Your task to perform on an android device: Search for 24"x36" picture frame on Home Depot. Image 0: 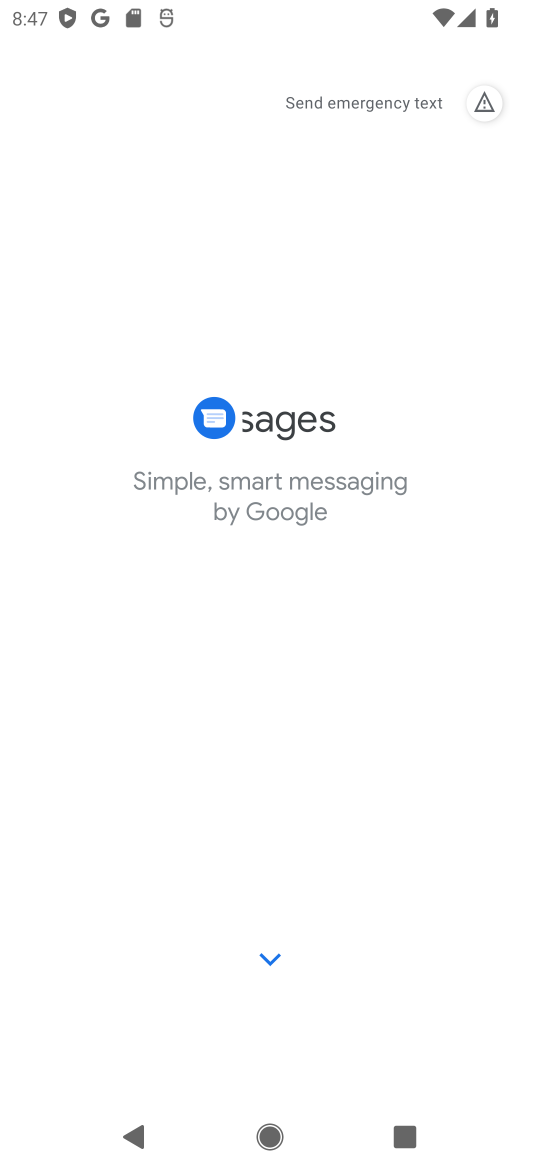
Step 0: press home button
Your task to perform on an android device: Search for 24"x36" picture frame on Home Depot. Image 1: 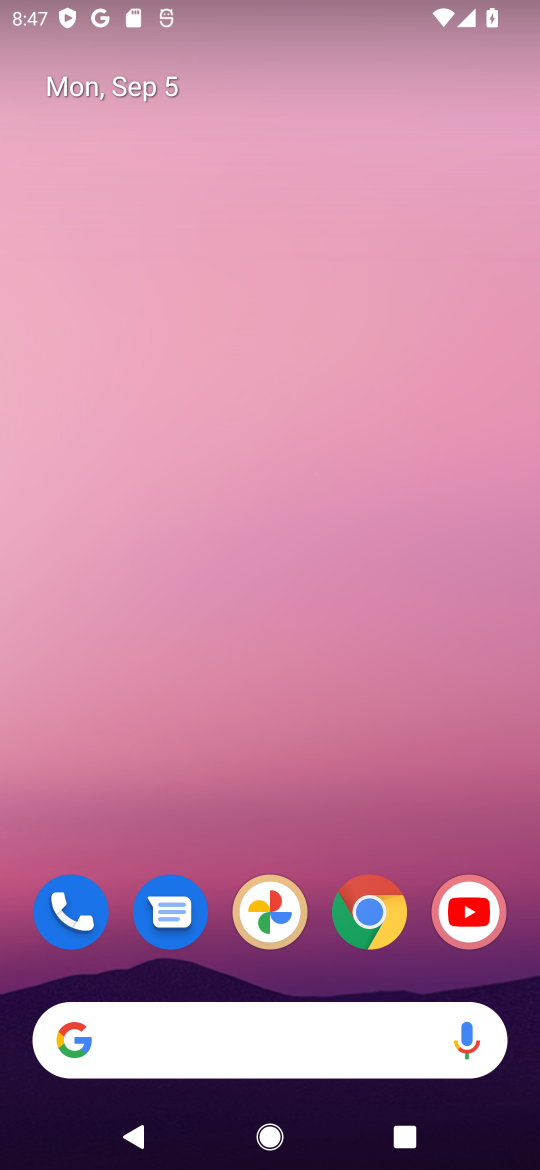
Step 1: click (373, 933)
Your task to perform on an android device: Search for 24"x36" picture frame on Home Depot. Image 2: 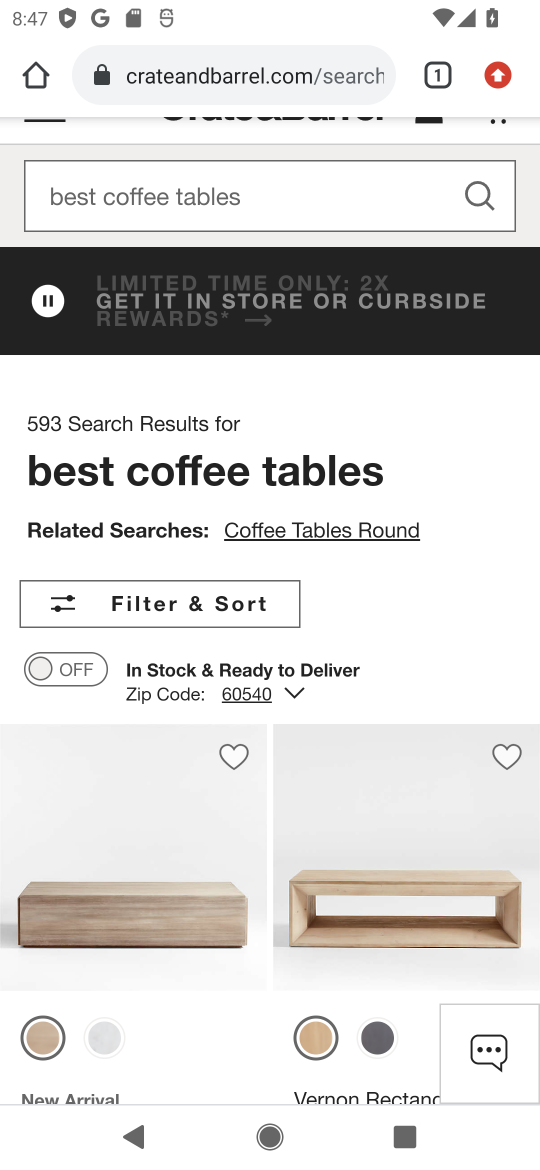
Step 2: drag from (175, 193) to (207, 89)
Your task to perform on an android device: Search for 24"x36" picture frame on Home Depot. Image 3: 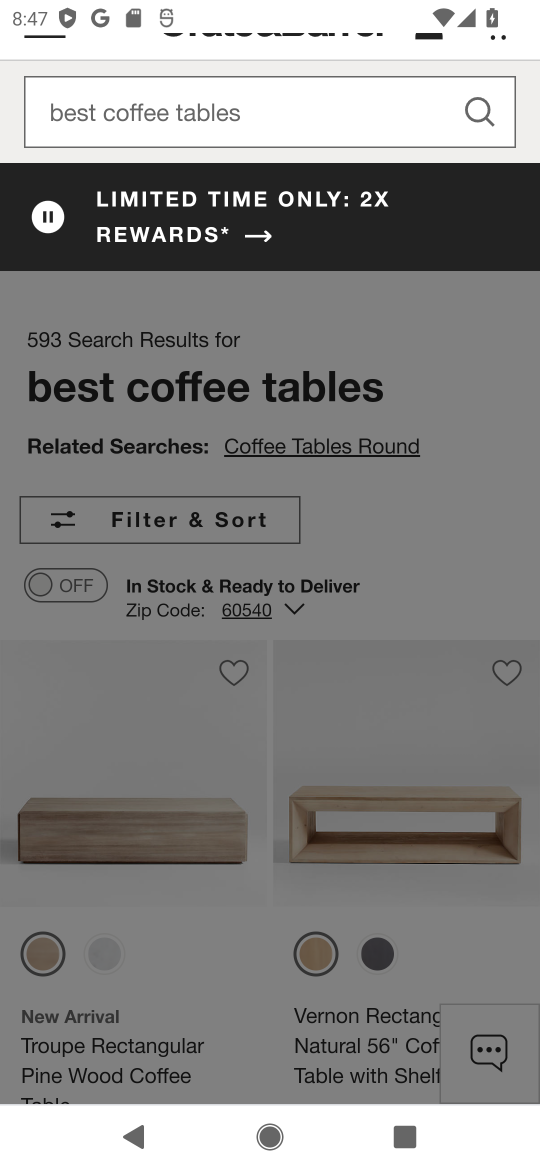
Step 3: click (212, 82)
Your task to perform on an android device: Search for 24"x36" picture frame on Home Depot. Image 4: 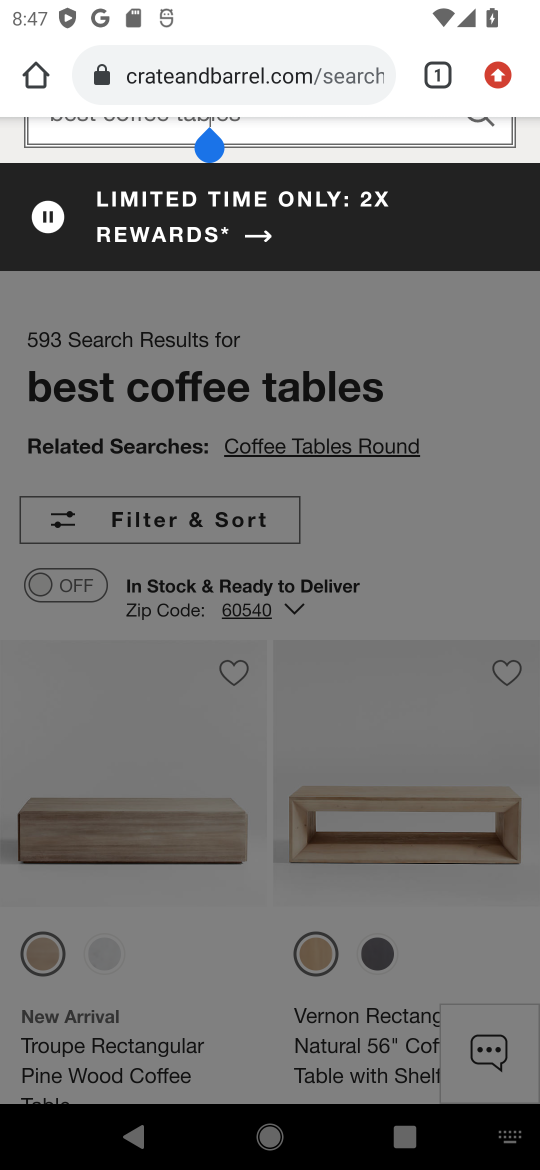
Step 4: drag from (214, 83) to (214, 174)
Your task to perform on an android device: Search for 24"x36" picture frame on Home Depot. Image 5: 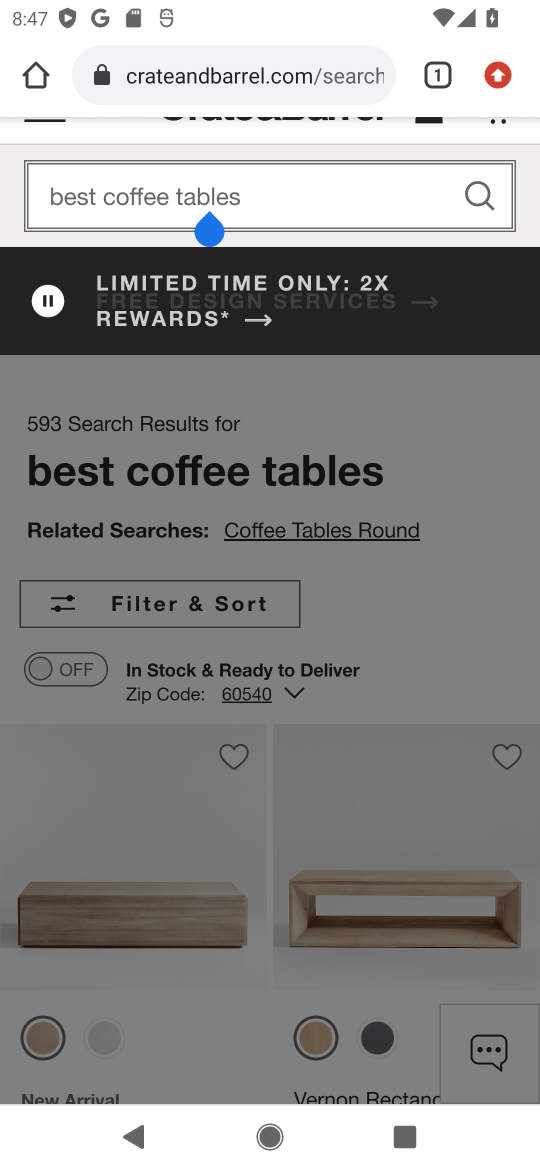
Step 5: click (227, 80)
Your task to perform on an android device: Search for 24"x36" picture frame on Home Depot. Image 6: 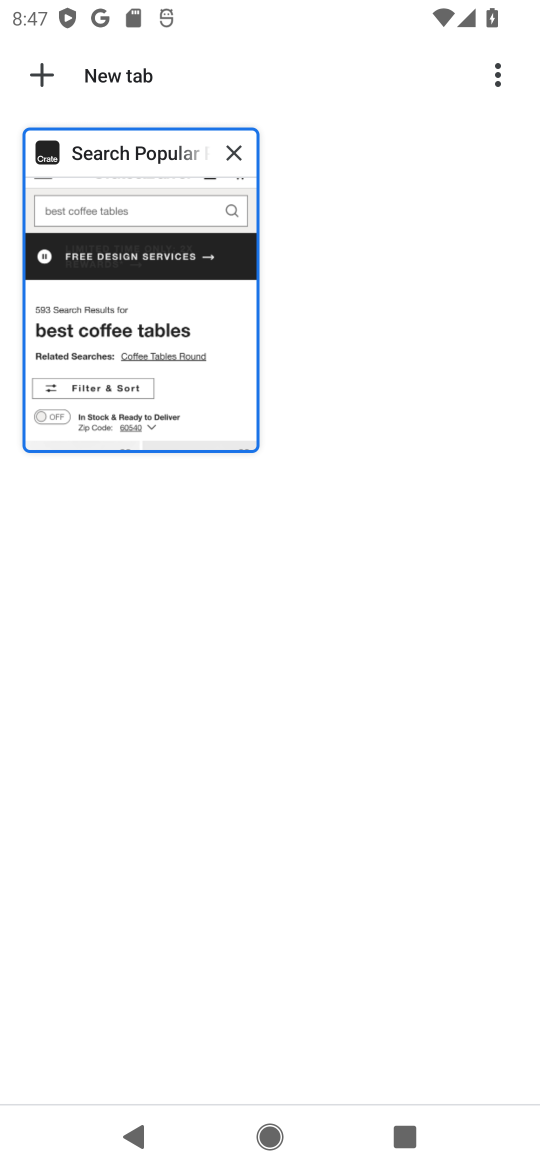
Step 6: click (44, 73)
Your task to perform on an android device: Search for 24"x36" picture frame on Home Depot. Image 7: 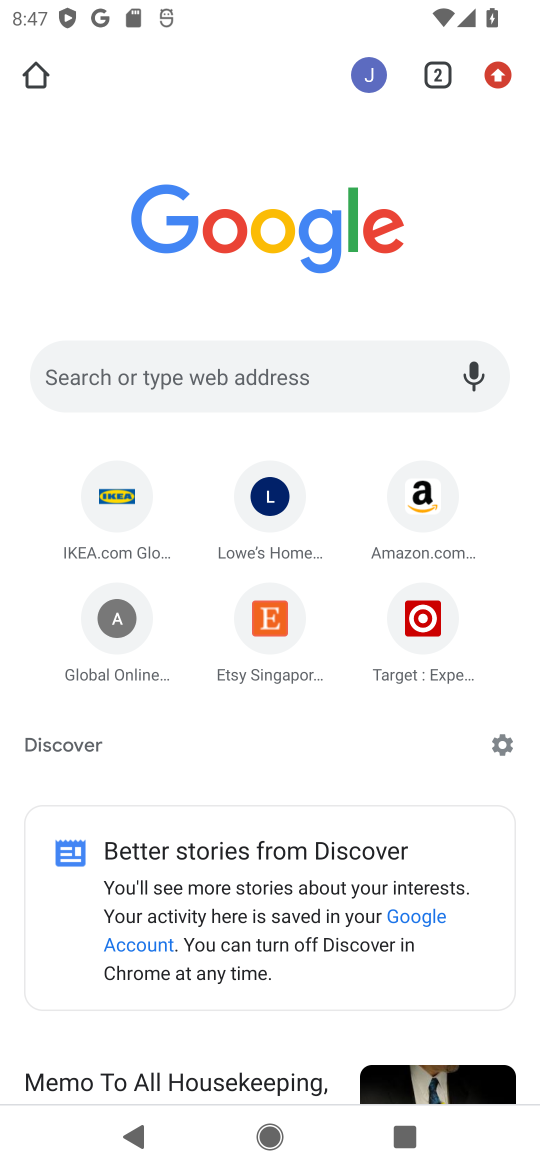
Step 7: click (284, 374)
Your task to perform on an android device: Search for 24"x36" picture frame on Home Depot. Image 8: 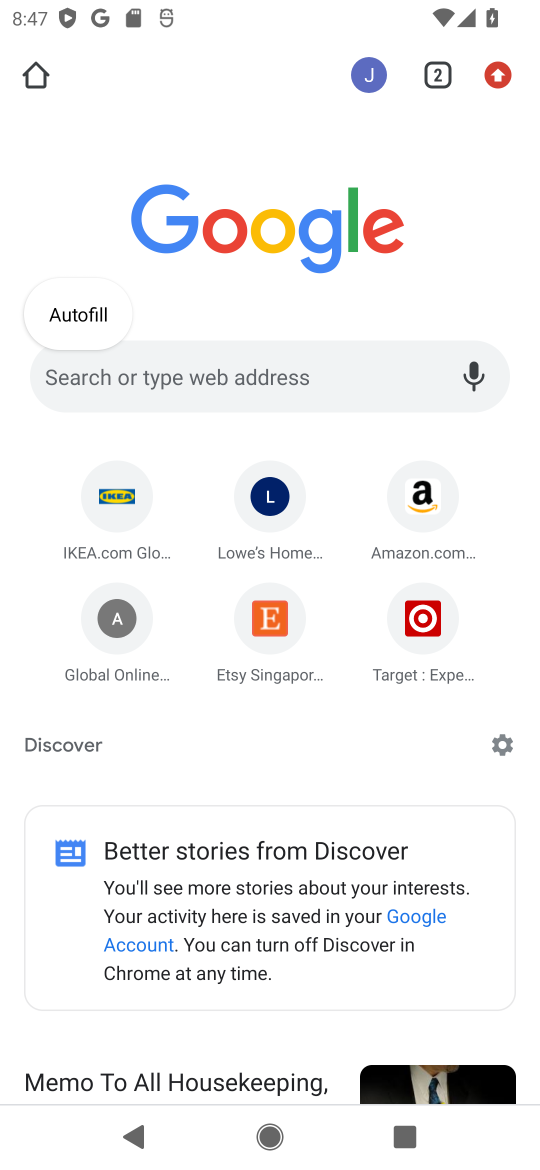
Step 8: type "home depot"
Your task to perform on an android device: Search for 24"x36" picture frame on Home Depot. Image 9: 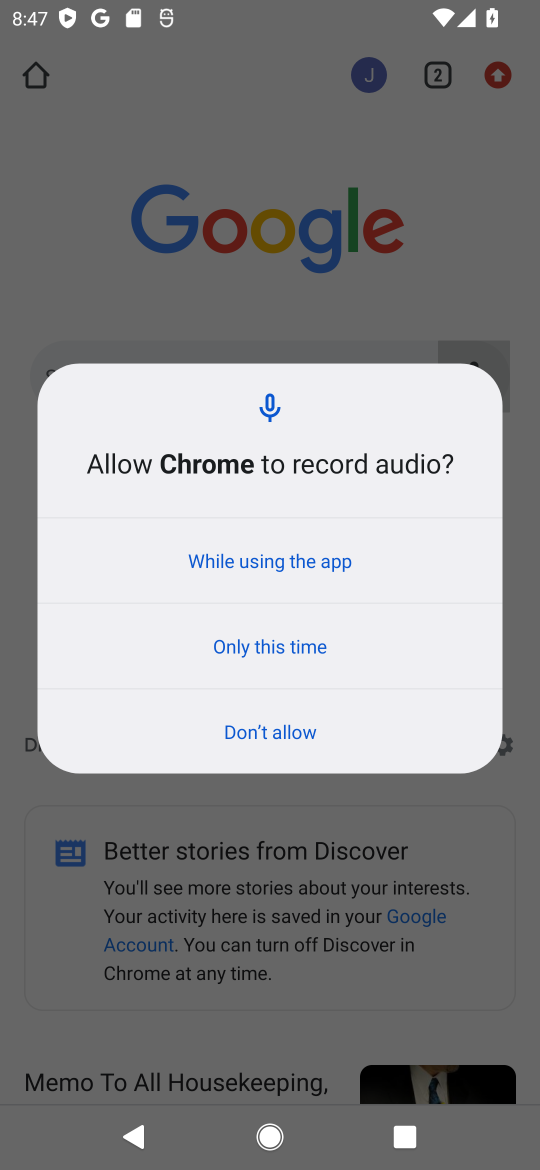
Step 9: click (290, 570)
Your task to perform on an android device: Search for 24"x36" picture frame on Home Depot. Image 10: 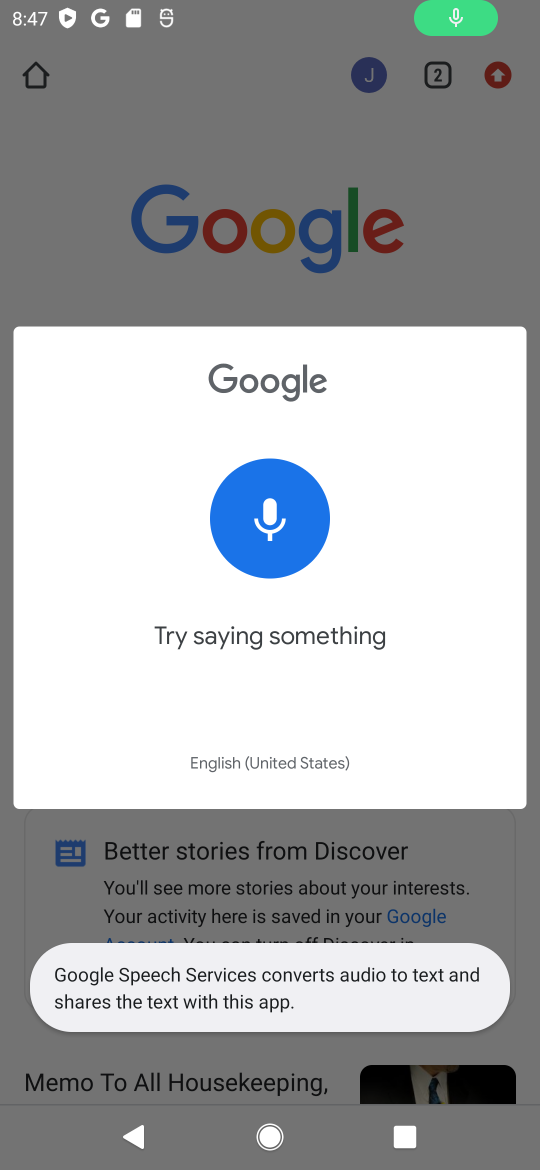
Step 10: click (146, 356)
Your task to perform on an android device: Search for 24"x36" picture frame on Home Depot. Image 11: 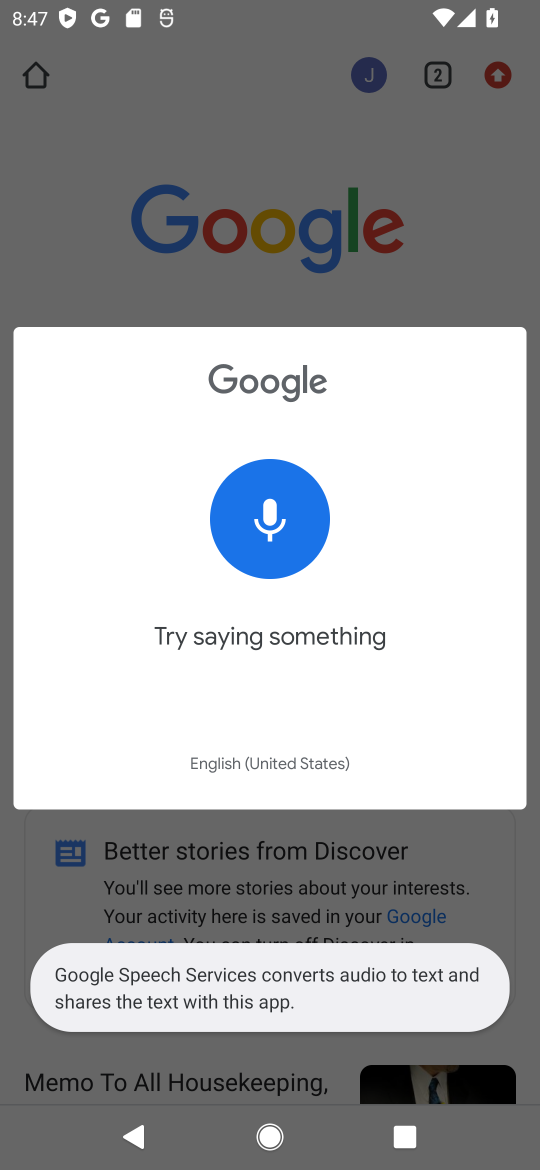
Step 11: click (339, 875)
Your task to perform on an android device: Search for 24"x36" picture frame on Home Depot. Image 12: 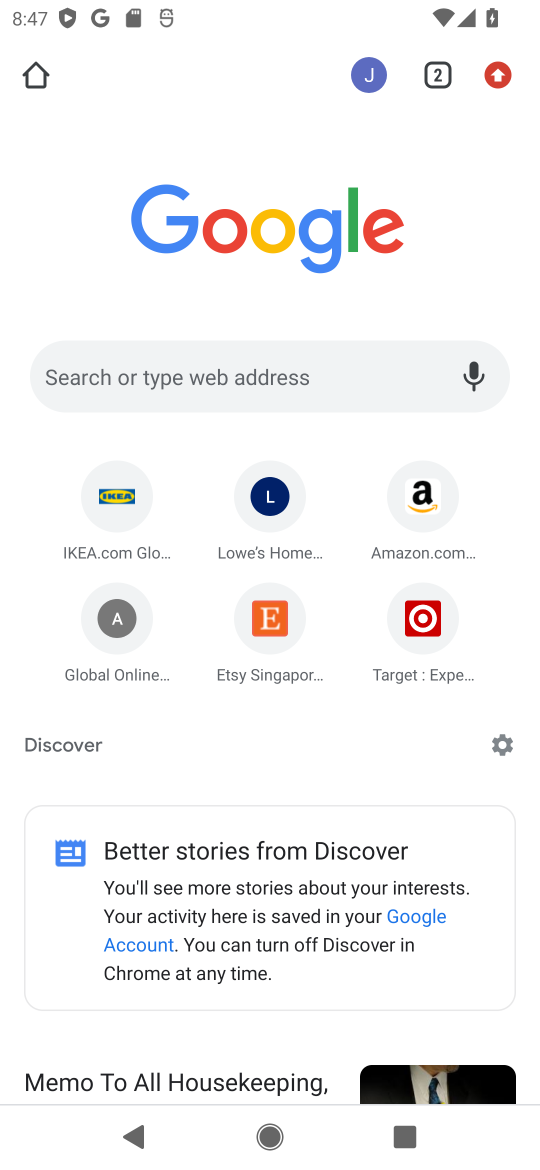
Step 12: click (208, 365)
Your task to perform on an android device: Search for 24"x36" picture frame on Home Depot. Image 13: 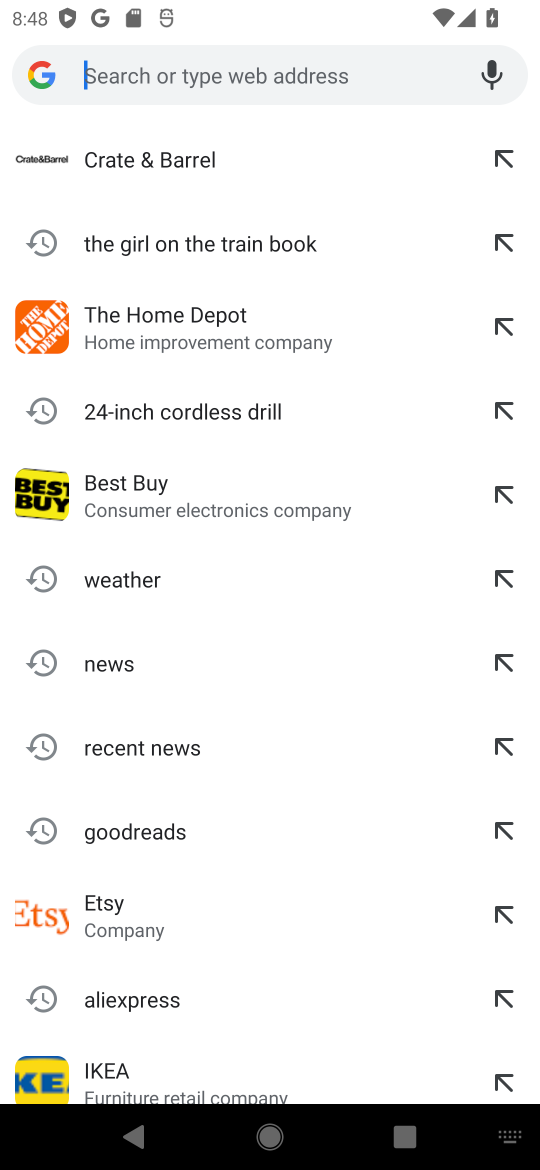
Step 13: type "home depot"
Your task to perform on an android device: Search for 24"x36" picture frame on Home Depot. Image 14: 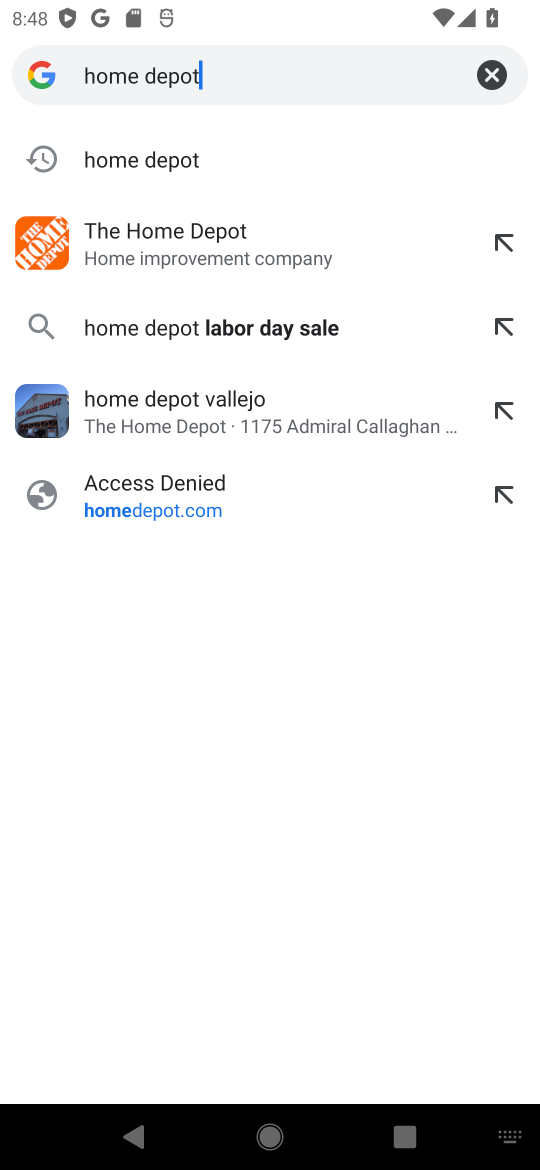
Step 14: click (234, 177)
Your task to perform on an android device: Search for 24"x36" picture frame on Home Depot. Image 15: 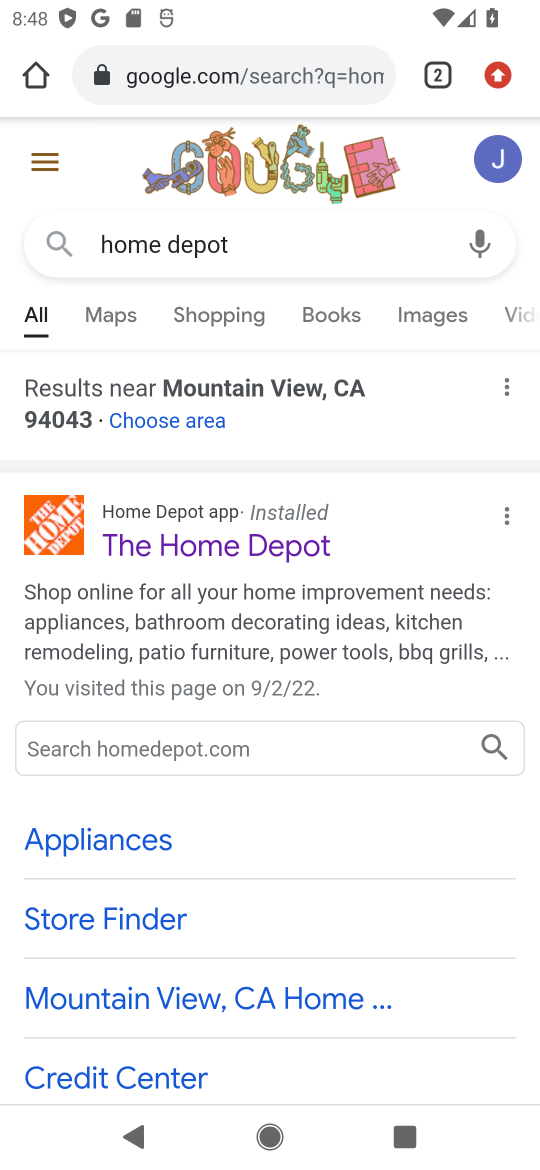
Step 15: click (245, 550)
Your task to perform on an android device: Search for 24"x36" picture frame on Home Depot. Image 16: 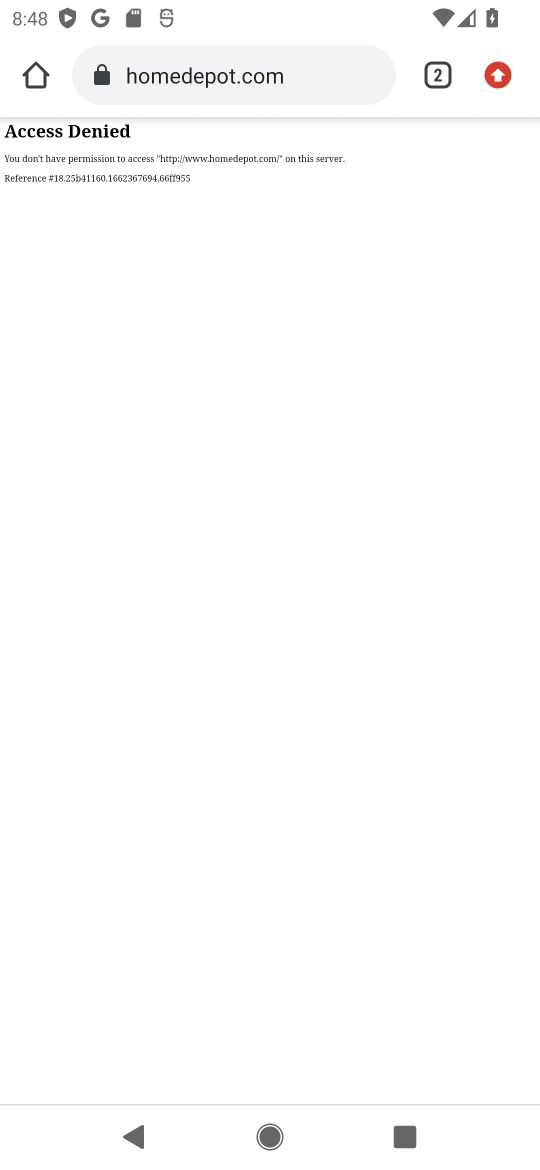
Step 16: task complete